Your task to perform on an android device: Go to Maps Image 0: 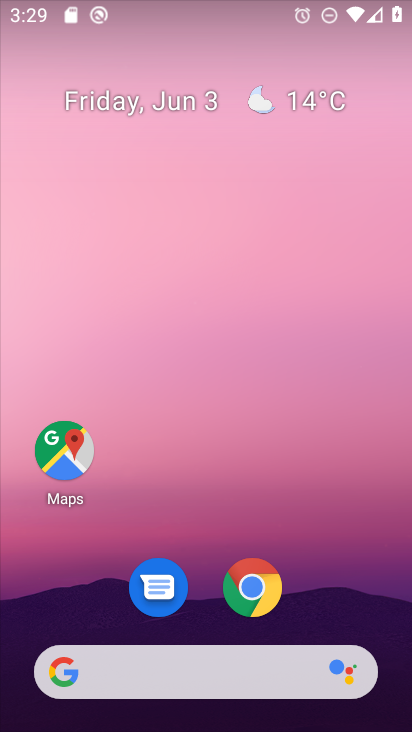
Step 0: drag from (242, 720) to (248, 246)
Your task to perform on an android device: Go to Maps Image 1: 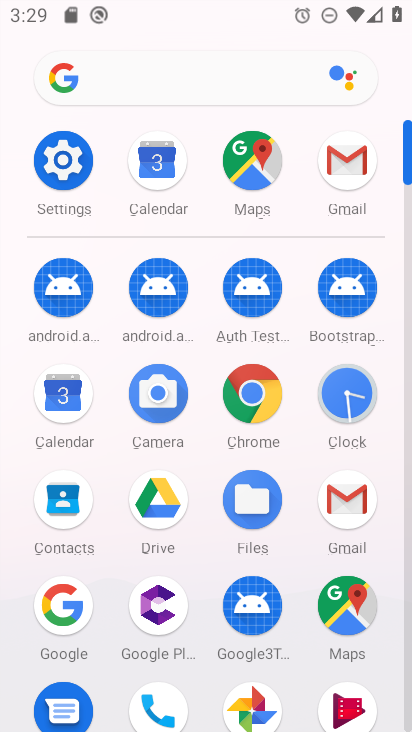
Step 1: click (344, 599)
Your task to perform on an android device: Go to Maps Image 2: 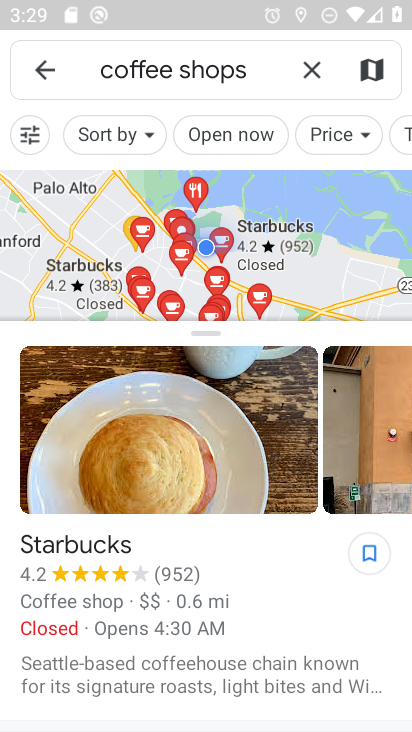
Step 2: task complete